Your task to perform on an android device: empty trash in the gmail app Image 0: 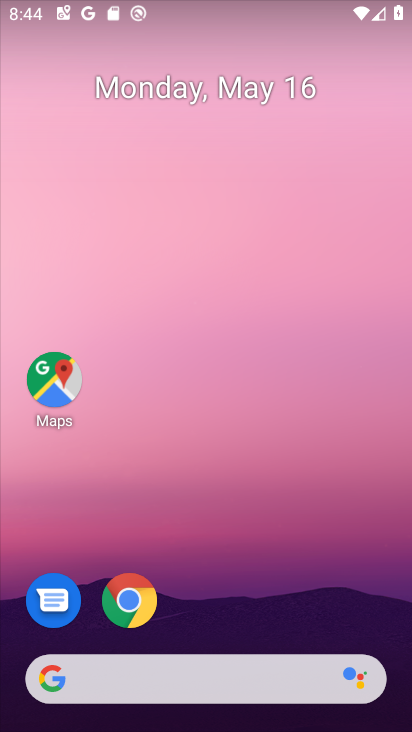
Step 0: drag from (204, 355) to (118, 29)
Your task to perform on an android device: empty trash in the gmail app Image 1: 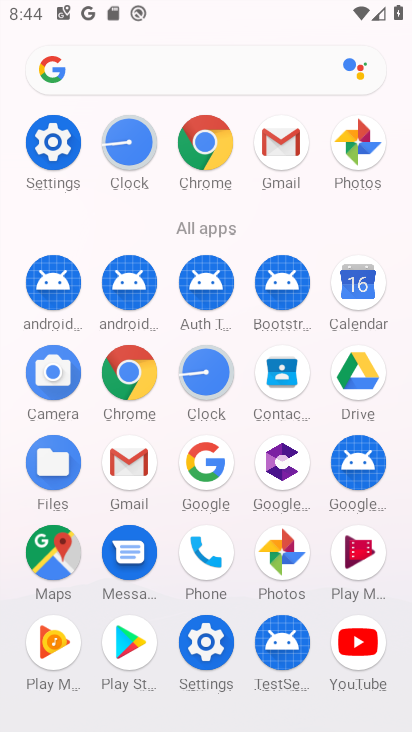
Step 1: click (275, 192)
Your task to perform on an android device: empty trash in the gmail app Image 2: 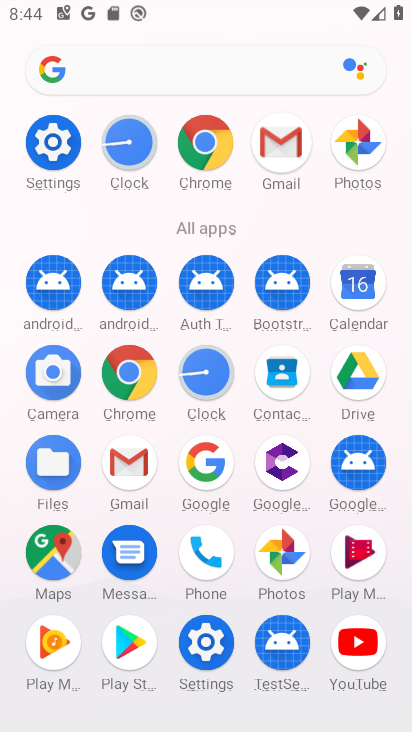
Step 2: click (276, 193)
Your task to perform on an android device: empty trash in the gmail app Image 3: 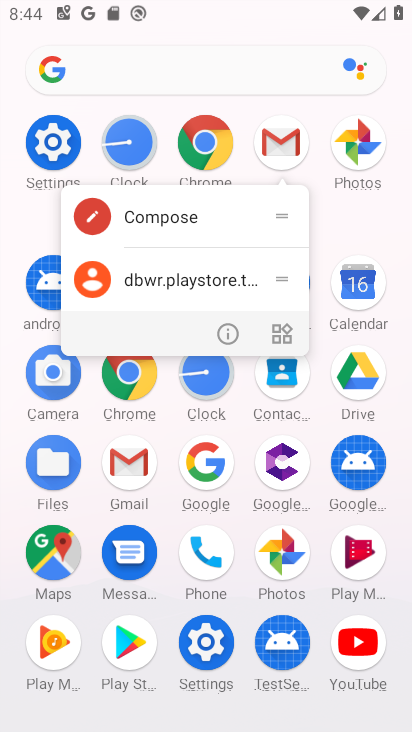
Step 3: click (267, 155)
Your task to perform on an android device: empty trash in the gmail app Image 4: 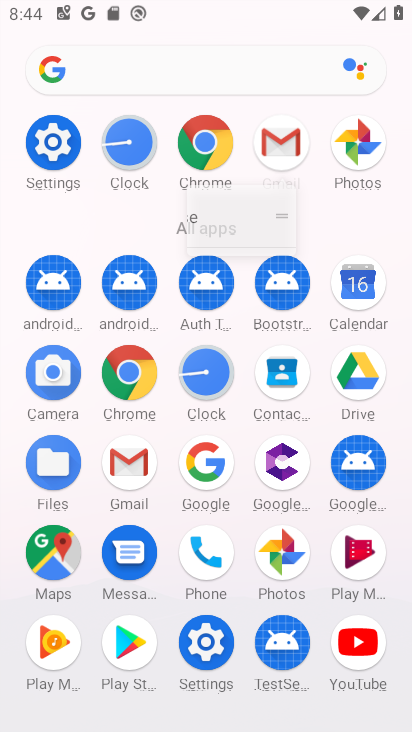
Step 4: click (267, 155)
Your task to perform on an android device: empty trash in the gmail app Image 5: 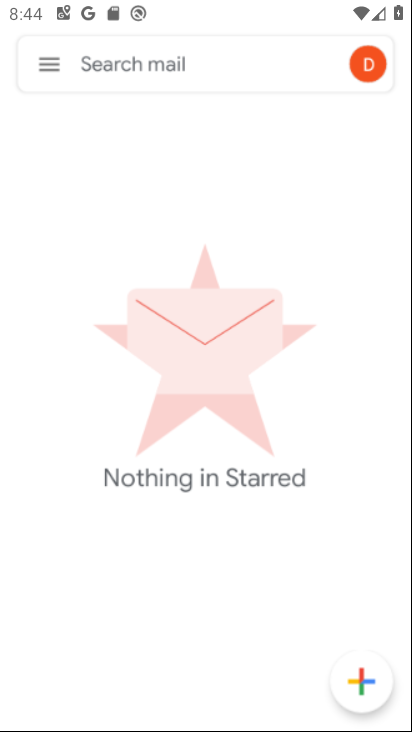
Step 5: click (267, 155)
Your task to perform on an android device: empty trash in the gmail app Image 6: 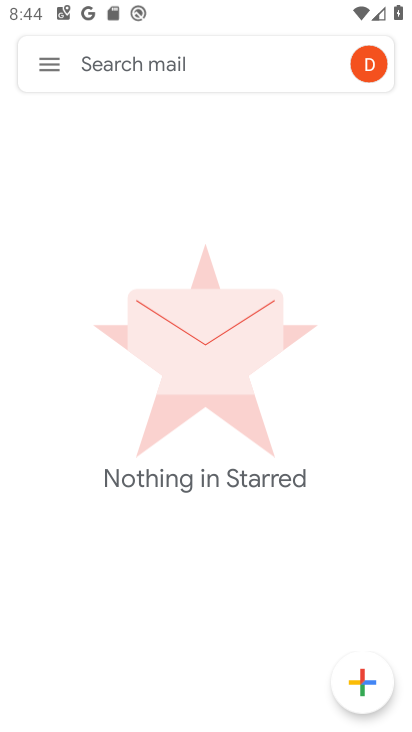
Step 6: click (46, 93)
Your task to perform on an android device: empty trash in the gmail app Image 7: 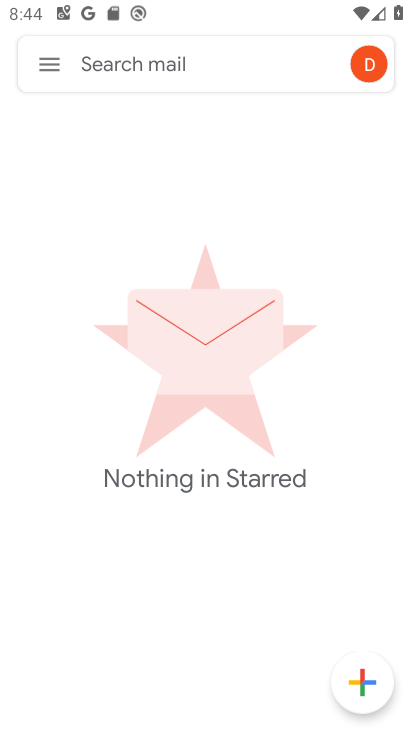
Step 7: task complete